Your task to perform on an android device: turn on airplane mode Image 0: 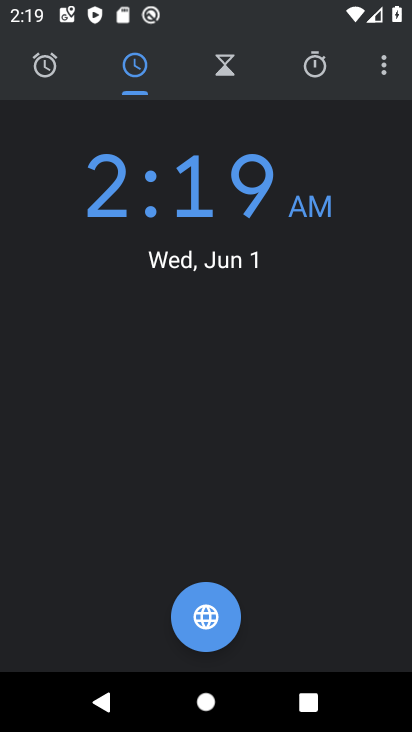
Step 0: press back button
Your task to perform on an android device: turn on airplane mode Image 1: 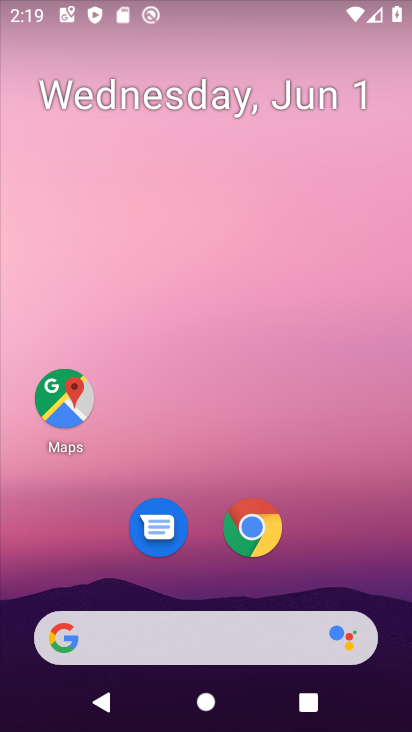
Step 1: drag from (333, 551) to (293, 56)
Your task to perform on an android device: turn on airplane mode Image 2: 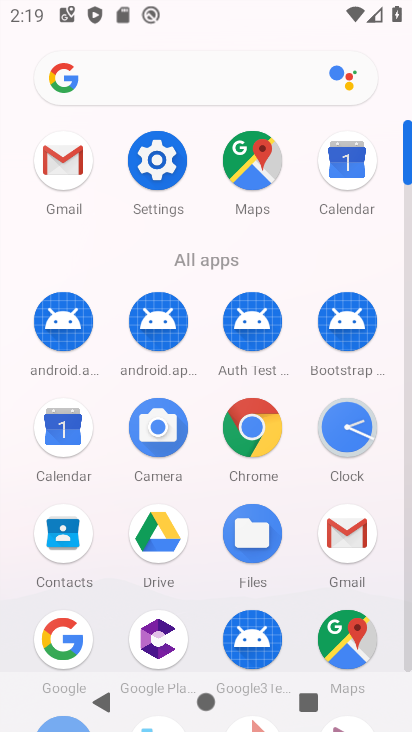
Step 2: click (159, 160)
Your task to perform on an android device: turn on airplane mode Image 3: 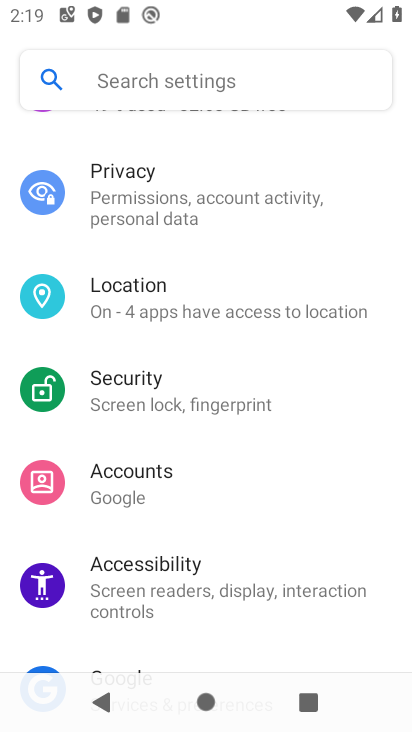
Step 3: drag from (198, 145) to (178, 230)
Your task to perform on an android device: turn on airplane mode Image 4: 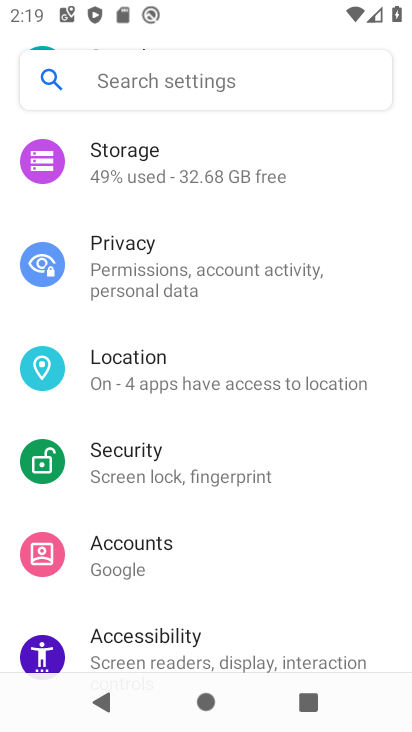
Step 4: drag from (195, 211) to (195, 293)
Your task to perform on an android device: turn on airplane mode Image 5: 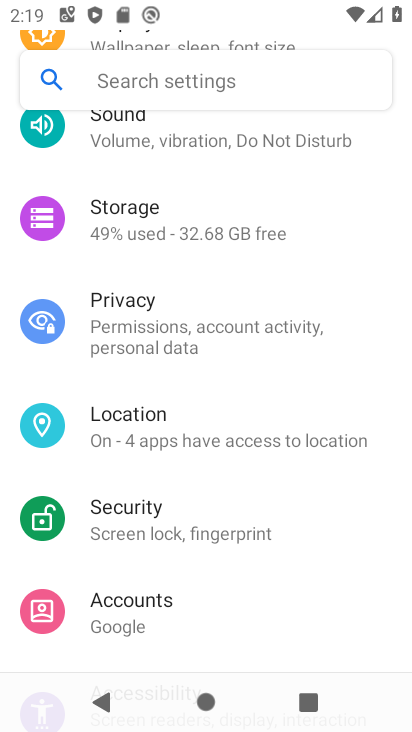
Step 5: drag from (241, 184) to (218, 277)
Your task to perform on an android device: turn on airplane mode Image 6: 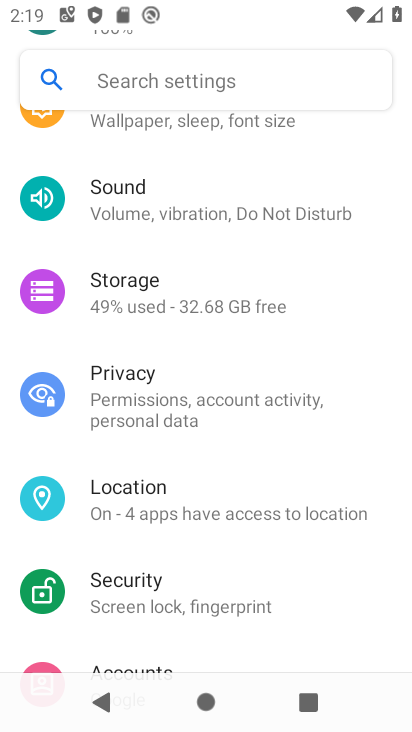
Step 6: drag from (234, 170) to (212, 293)
Your task to perform on an android device: turn on airplane mode Image 7: 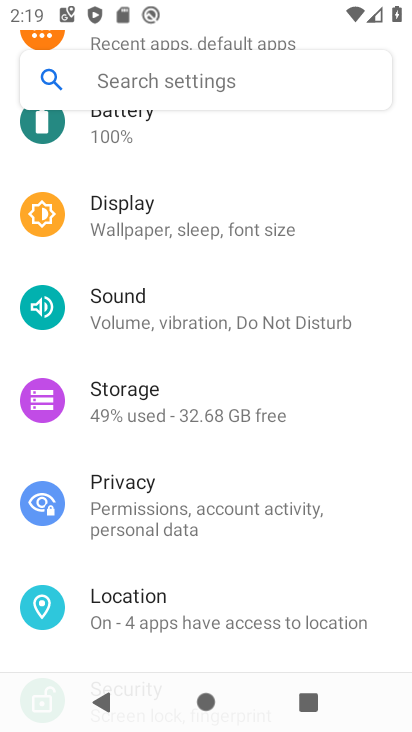
Step 7: drag from (253, 180) to (262, 293)
Your task to perform on an android device: turn on airplane mode Image 8: 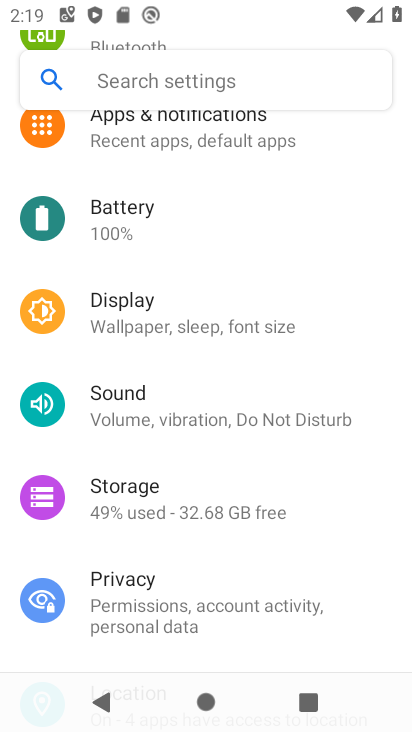
Step 8: drag from (229, 215) to (255, 330)
Your task to perform on an android device: turn on airplane mode Image 9: 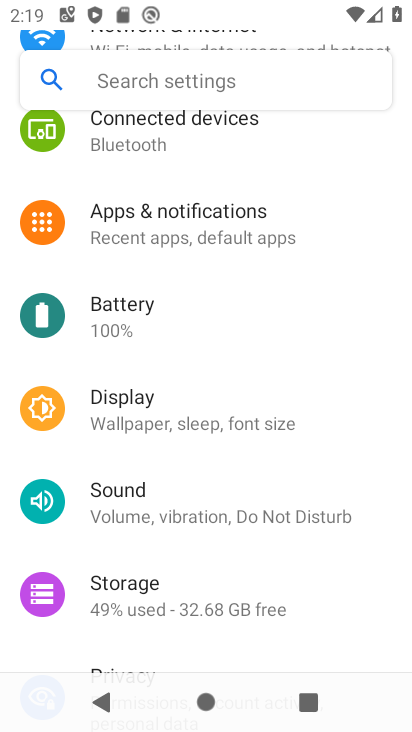
Step 9: drag from (266, 173) to (309, 302)
Your task to perform on an android device: turn on airplane mode Image 10: 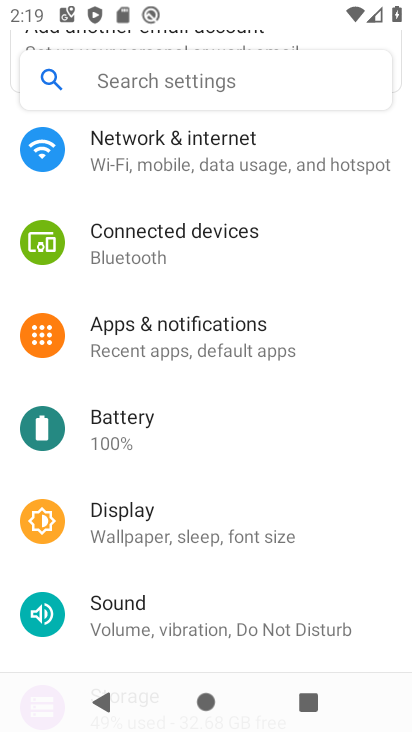
Step 10: click (281, 155)
Your task to perform on an android device: turn on airplane mode Image 11: 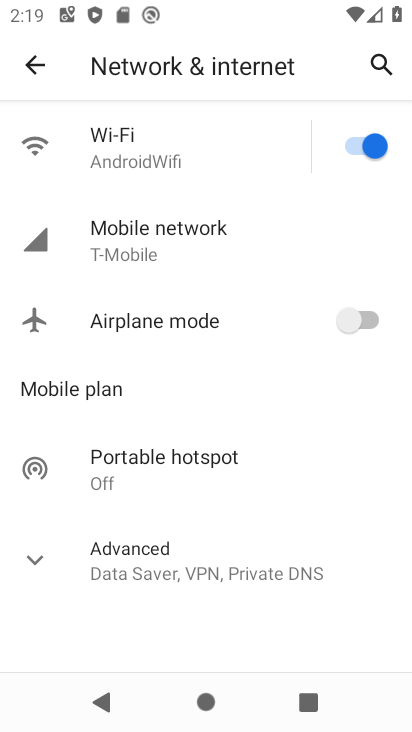
Step 11: click (363, 328)
Your task to perform on an android device: turn on airplane mode Image 12: 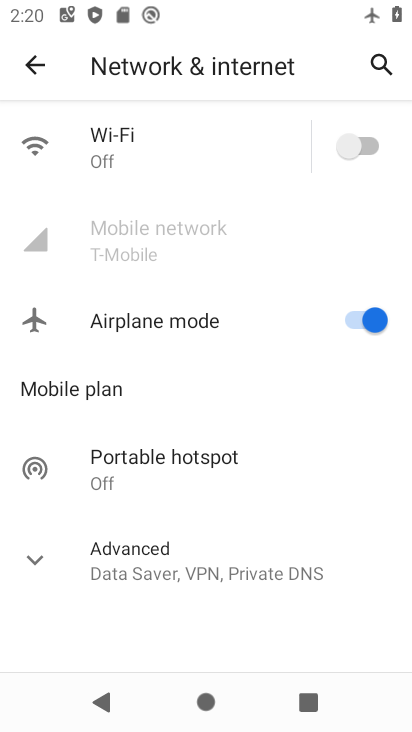
Step 12: task complete